Your task to perform on an android device: empty trash in google photos Image 0: 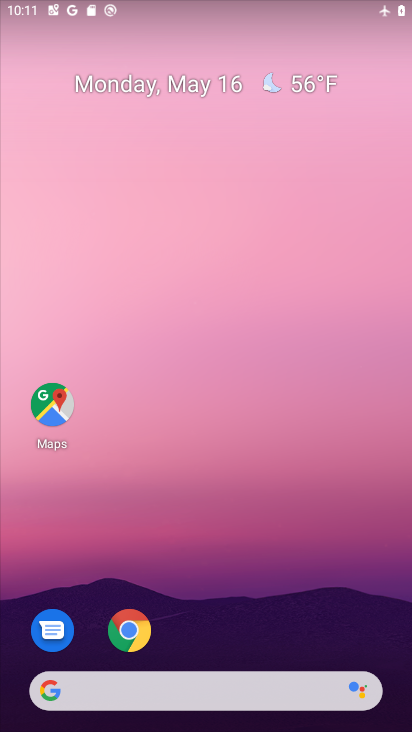
Step 0: drag from (302, 527) to (246, 8)
Your task to perform on an android device: empty trash in google photos Image 1: 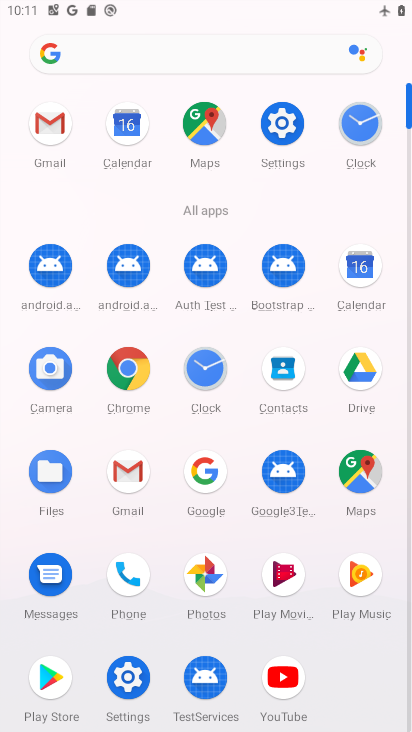
Step 1: click (201, 582)
Your task to perform on an android device: empty trash in google photos Image 2: 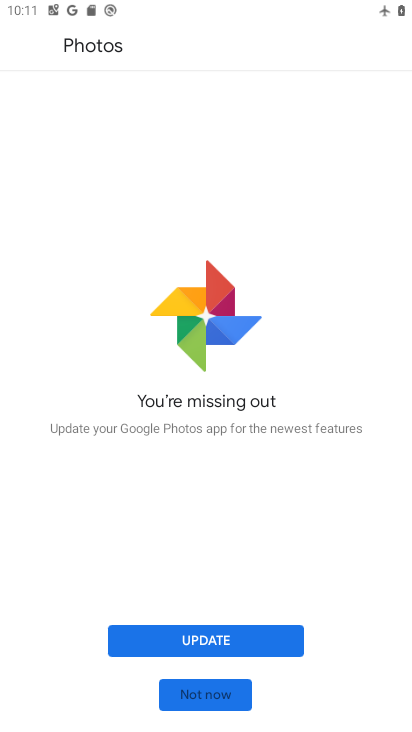
Step 2: click (185, 693)
Your task to perform on an android device: empty trash in google photos Image 3: 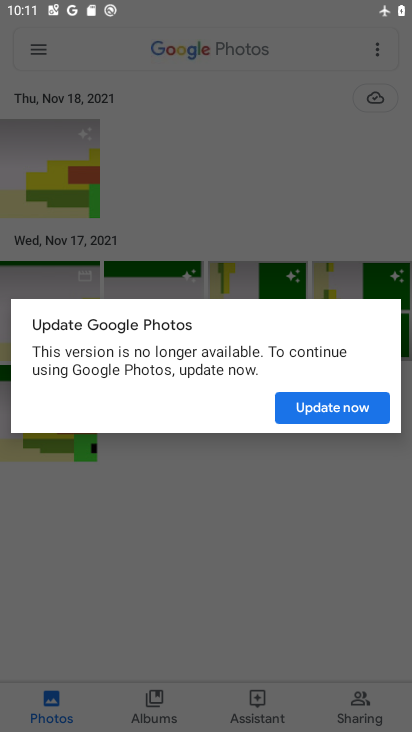
Step 3: click (325, 401)
Your task to perform on an android device: empty trash in google photos Image 4: 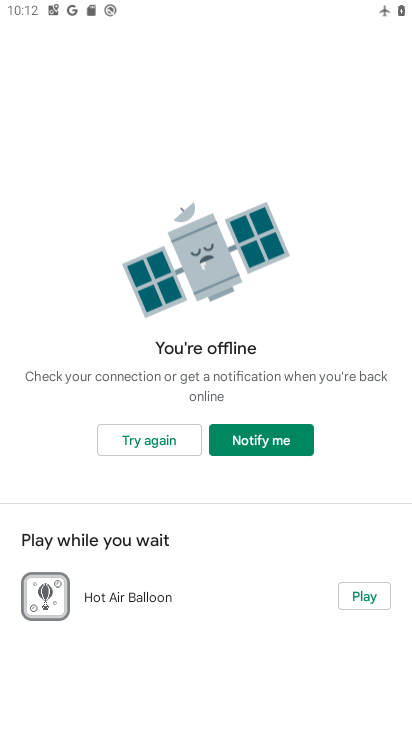
Step 4: click (173, 440)
Your task to perform on an android device: empty trash in google photos Image 5: 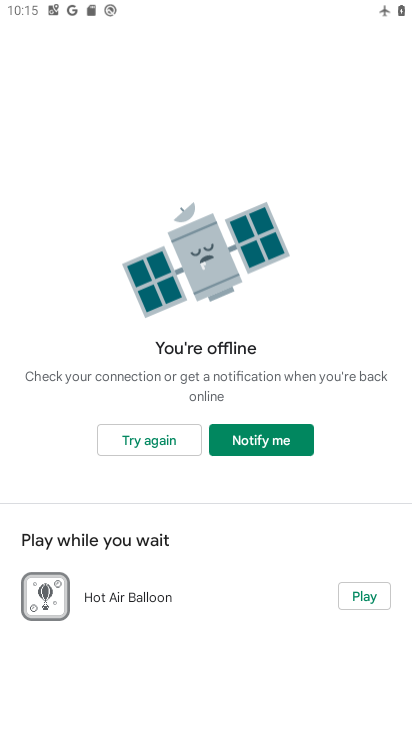
Step 5: task complete